Your task to perform on an android device: set default search engine in the chrome app Image 0: 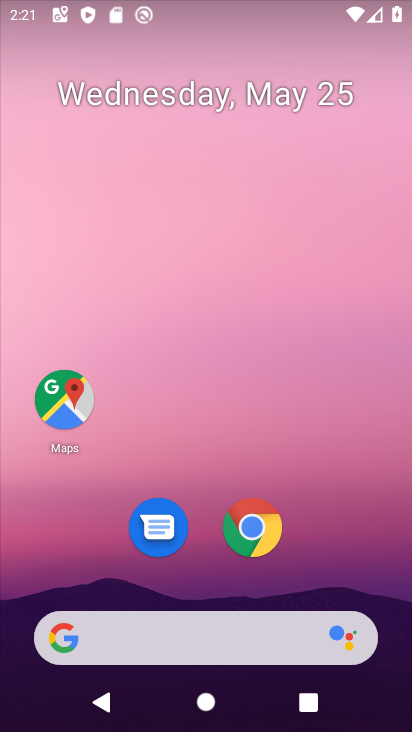
Step 0: drag from (166, 586) to (310, 108)
Your task to perform on an android device: set default search engine in the chrome app Image 1: 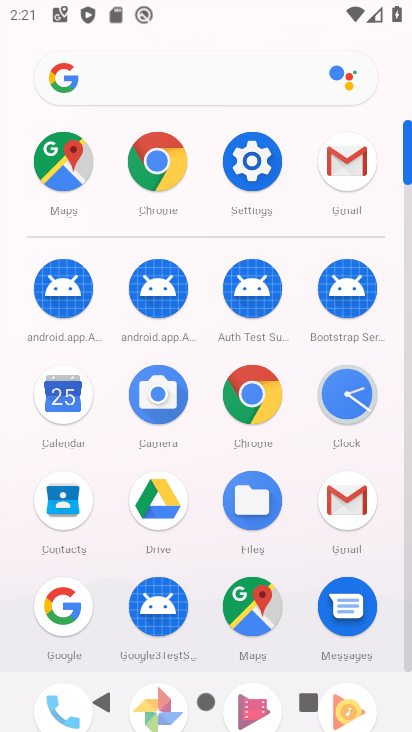
Step 1: click (247, 378)
Your task to perform on an android device: set default search engine in the chrome app Image 2: 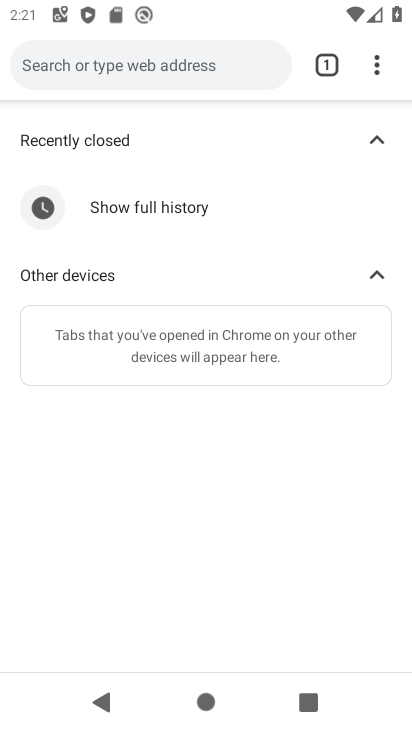
Step 2: click (369, 57)
Your task to perform on an android device: set default search engine in the chrome app Image 3: 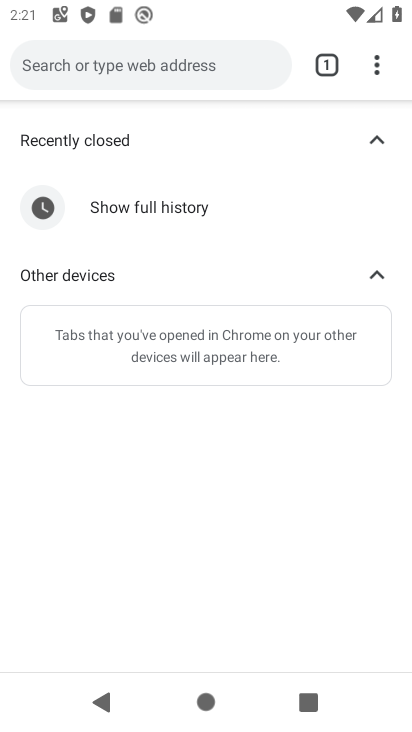
Step 3: click (381, 60)
Your task to perform on an android device: set default search engine in the chrome app Image 4: 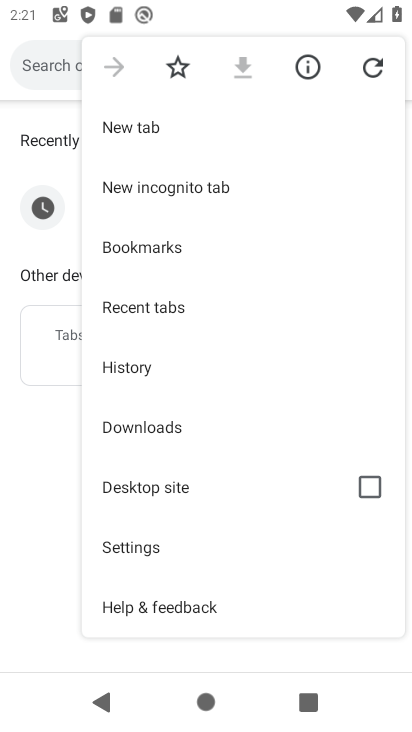
Step 4: click (136, 541)
Your task to perform on an android device: set default search engine in the chrome app Image 5: 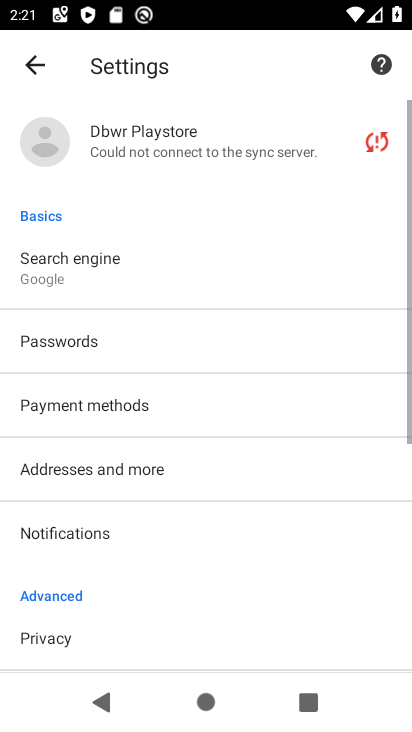
Step 5: click (179, 271)
Your task to perform on an android device: set default search engine in the chrome app Image 6: 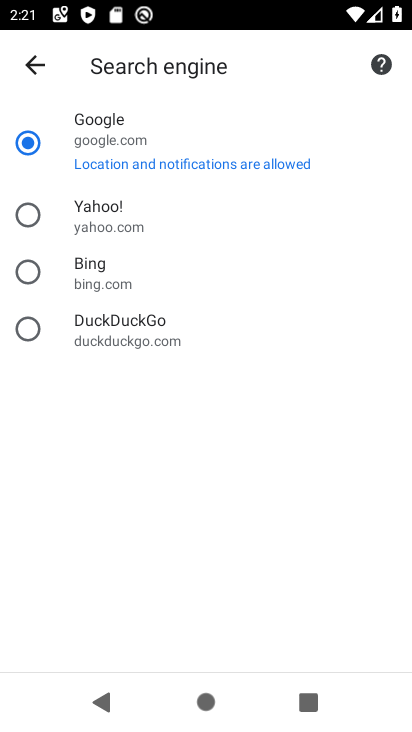
Step 6: task complete